Your task to perform on an android device: Open internet settings Image 0: 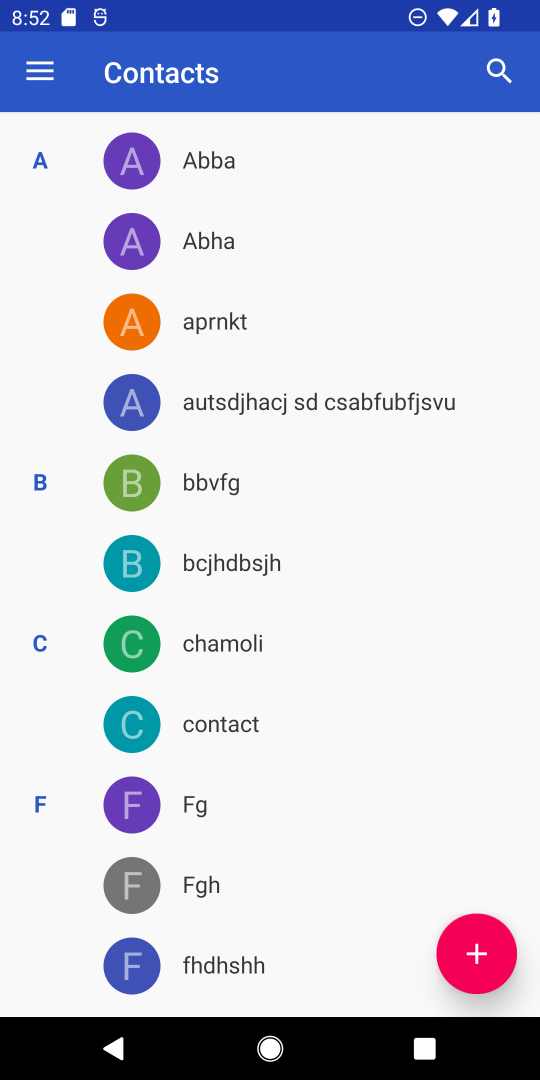
Step 0: press home button
Your task to perform on an android device: Open internet settings Image 1: 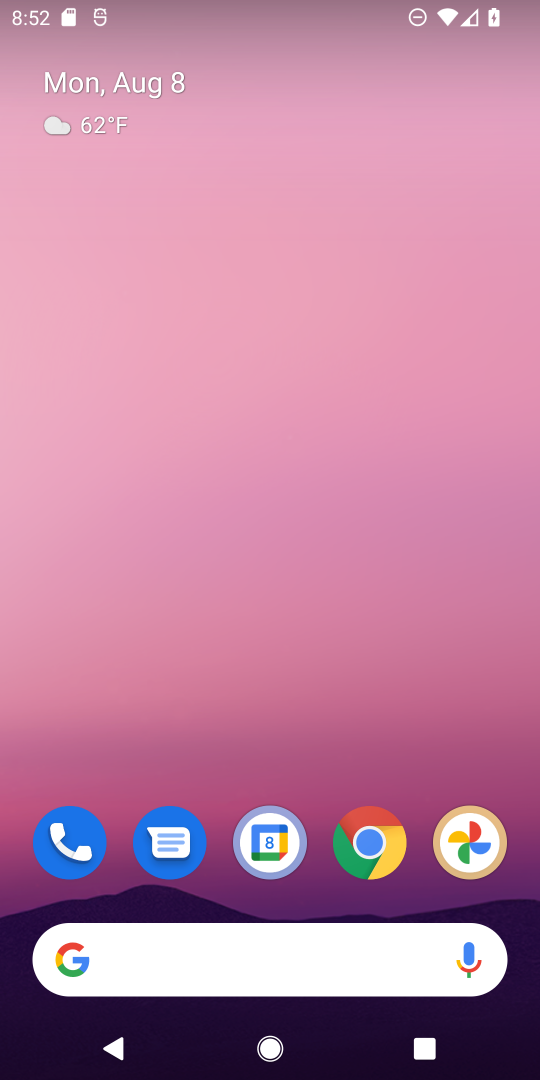
Step 1: drag from (315, 745) to (341, 1)
Your task to perform on an android device: Open internet settings Image 2: 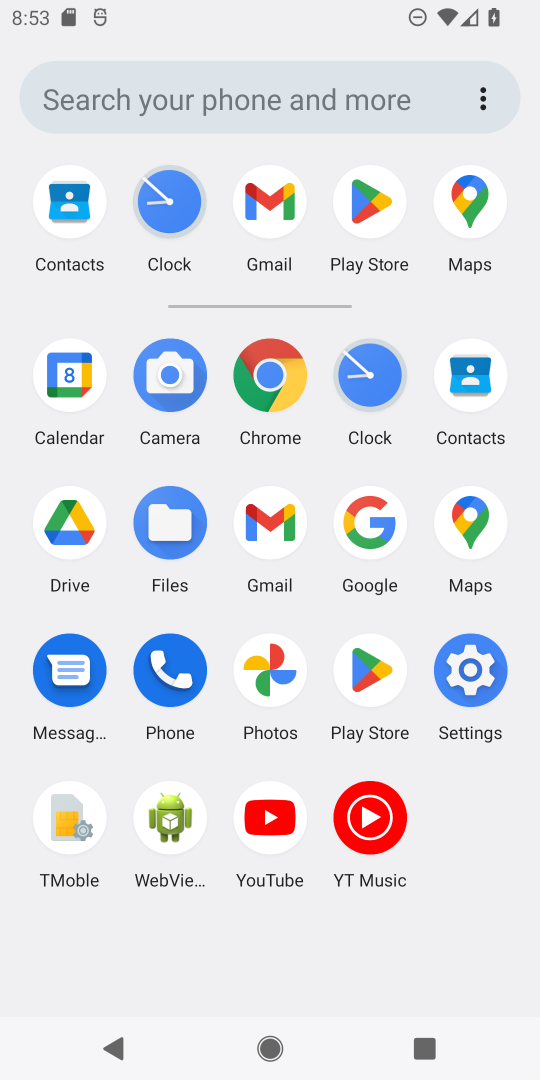
Step 2: click (472, 665)
Your task to perform on an android device: Open internet settings Image 3: 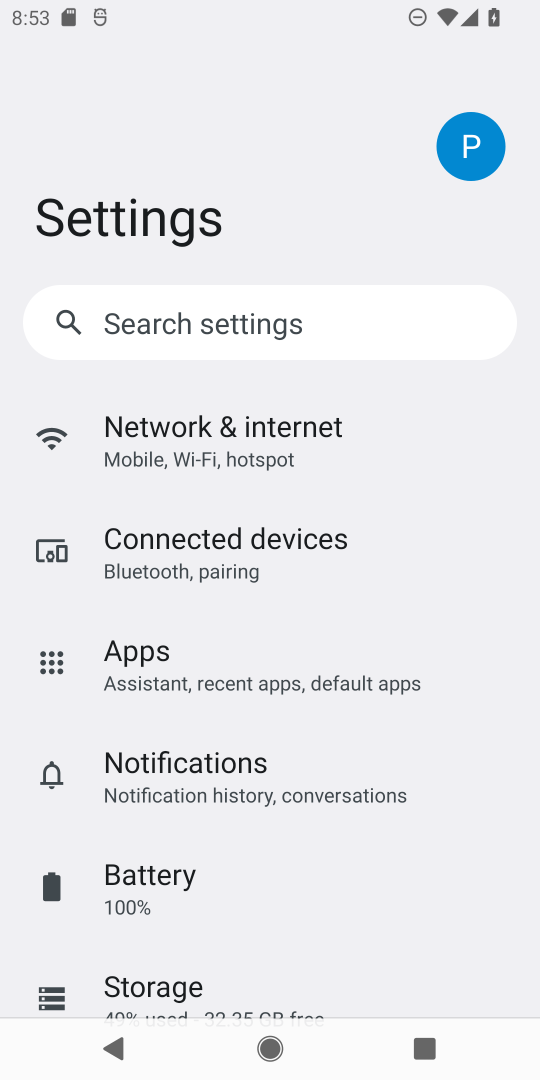
Step 3: click (255, 439)
Your task to perform on an android device: Open internet settings Image 4: 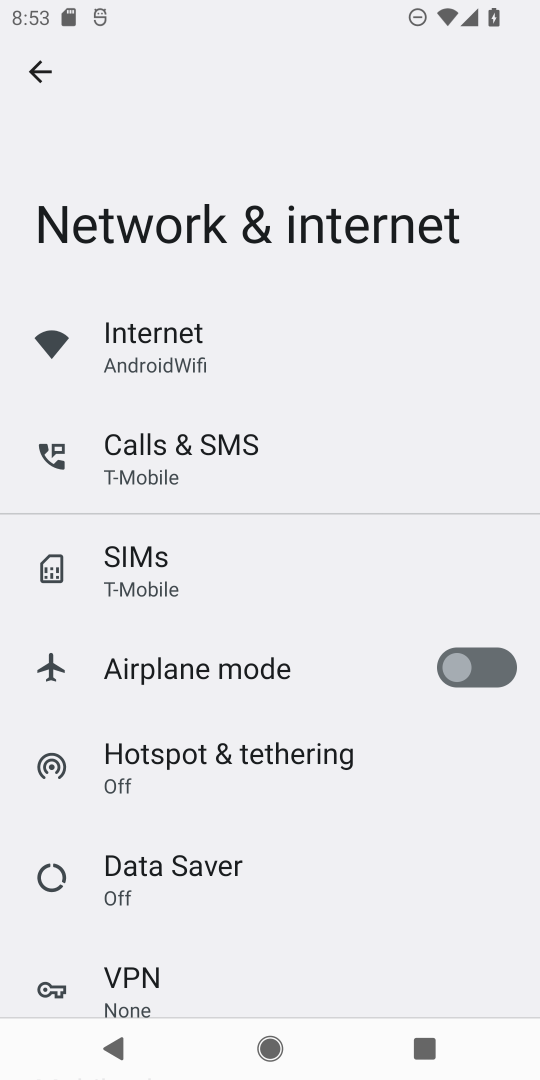
Step 4: click (182, 346)
Your task to perform on an android device: Open internet settings Image 5: 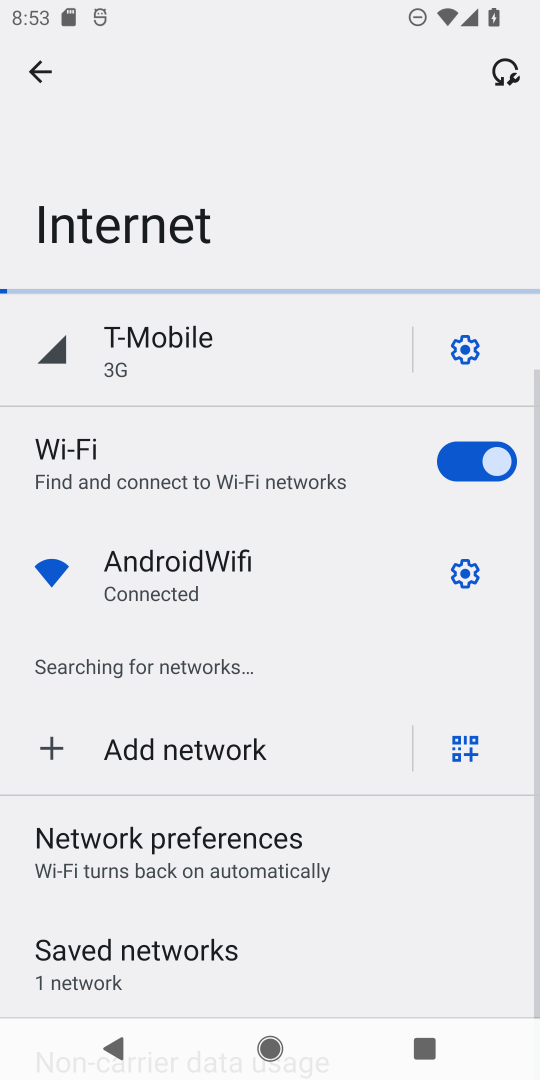
Step 5: task complete